Your task to perform on an android device: change your default location settings in chrome Image 0: 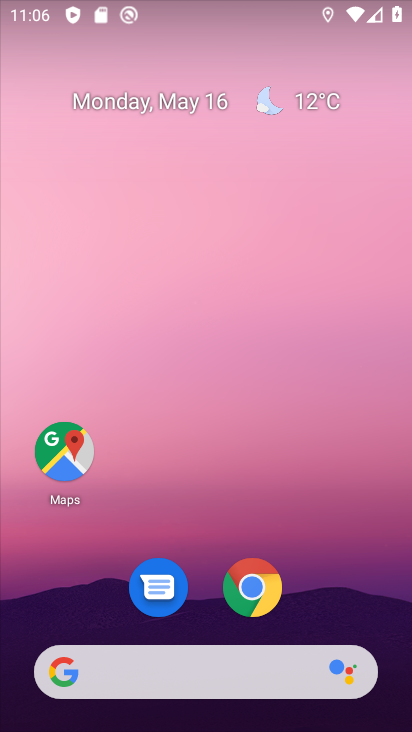
Step 0: drag from (195, 591) to (339, 168)
Your task to perform on an android device: change your default location settings in chrome Image 1: 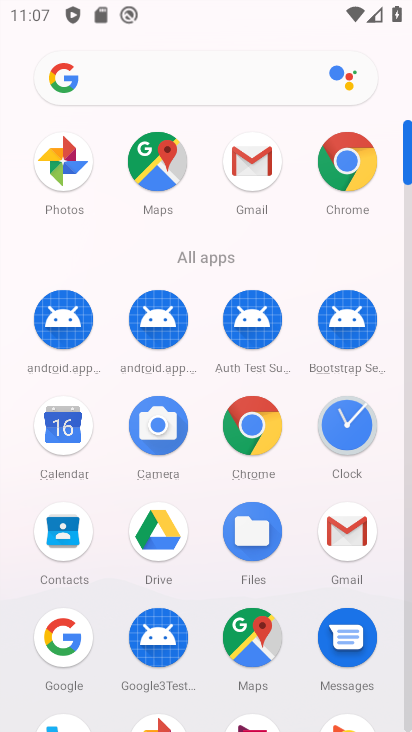
Step 1: click (345, 162)
Your task to perform on an android device: change your default location settings in chrome Image 2: 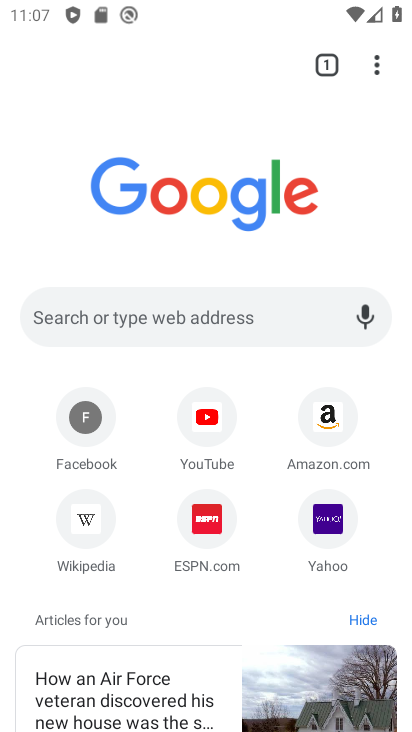
Step 2: click (372, 60)
Your task to perform on an android device: change your default location settings in chrome Image 3: 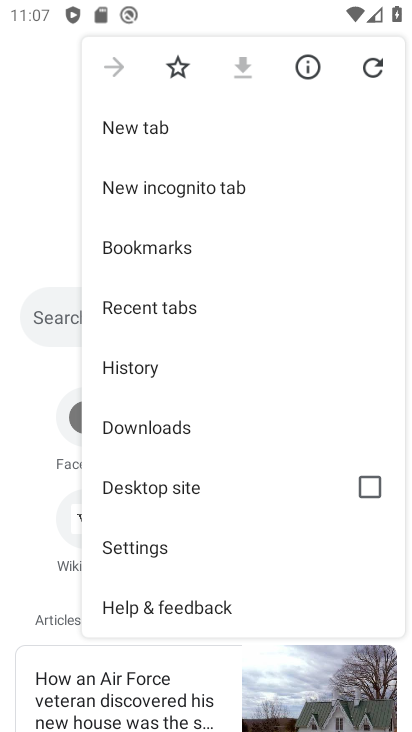
Step 3: click (198, 546)
Your task to perform on an android device: change your default location settings in chrome Image 4: 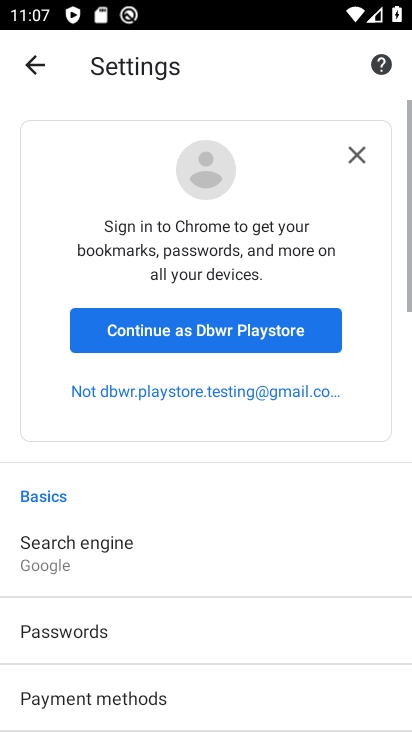
Step 4: drag from (190, 591) to (319, 88)
Your task to perform on an android device: change your default location settings in chrome Image 5: 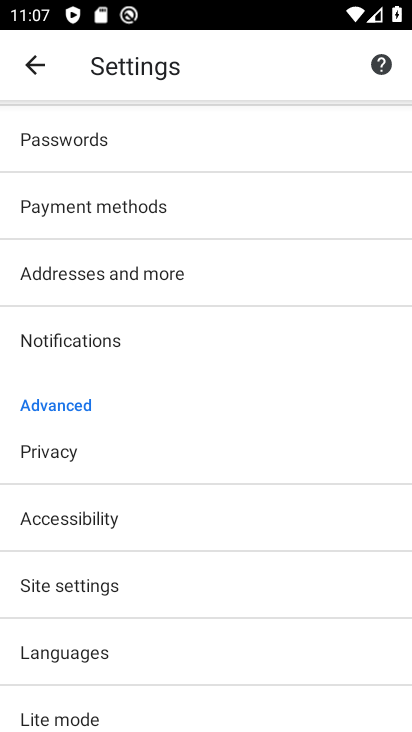
Step 5: click (147, 585)
Your task to perform on an android device: change your default location settings in chrome Image 6: 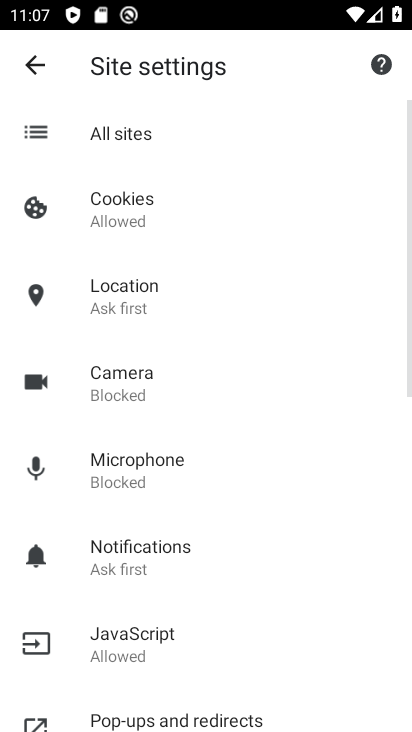
Step 6: click (146, 270)
Your task to perform on an android device: change your default location settings in chrome Image 7: 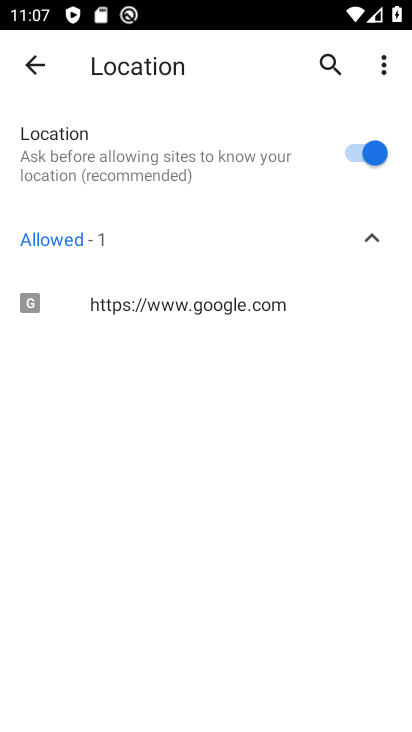
Step 7: drag from (227, 425) to (375, 122)
Your task to perform on an android device: change your default location settings in chrome Image 8: 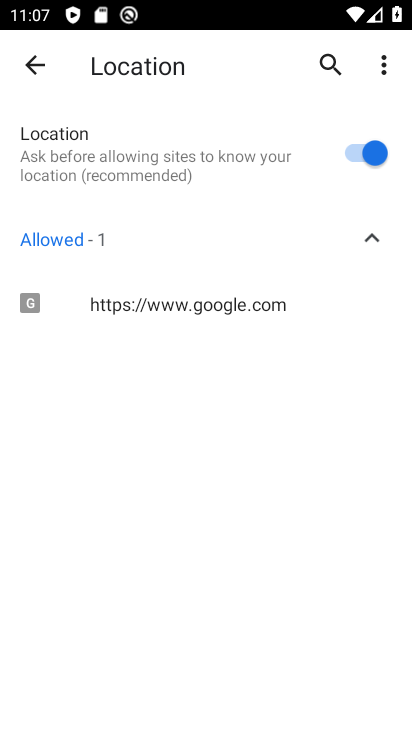
Step 8: click (347, 154)
Your task to perform on an android device: change your default location settings in chrome Image 9: 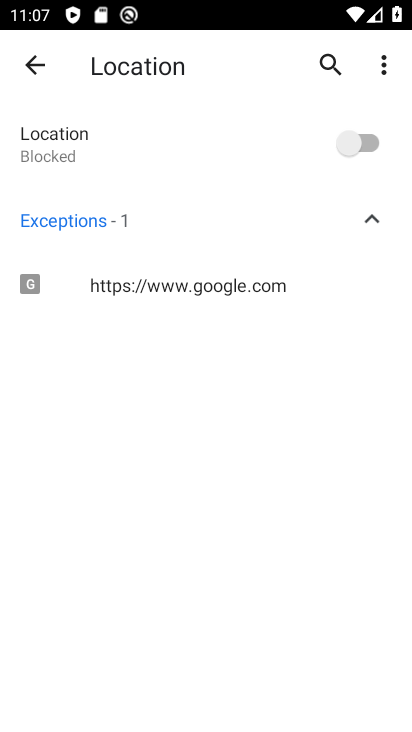
Step 9: task complete